Your task to perform on an android device: Show me the alarms in the clock app Image 0: 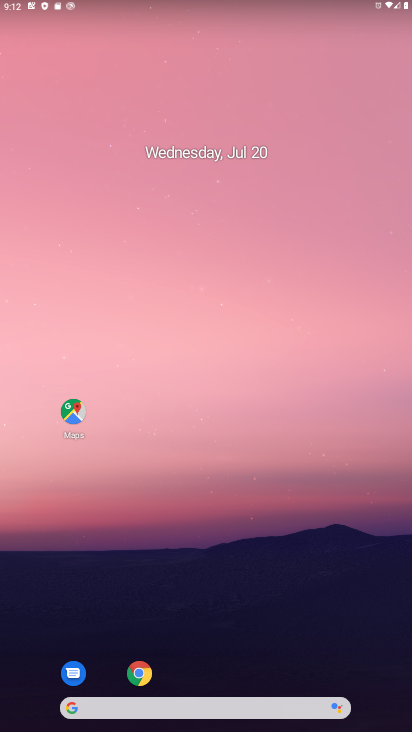
Step 0: drag from (209, 674) to (232, 275)
Your task to perform on an android device: Show me the alarms in the clock app Image 1: 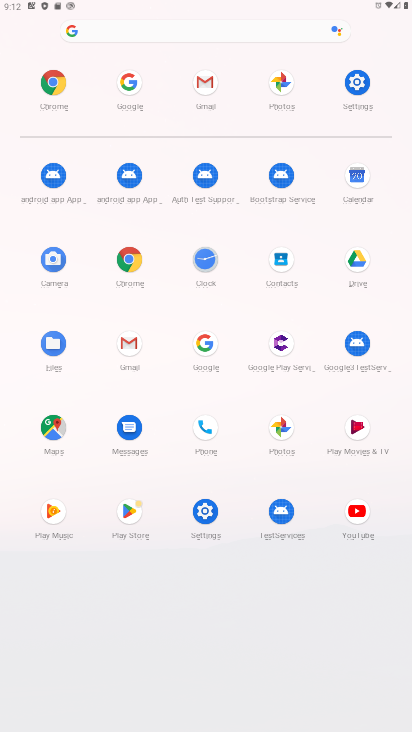
Step 1: click (207, 254)
Your task to perform on an android device: Show me the alarms in the clock app Image 2: 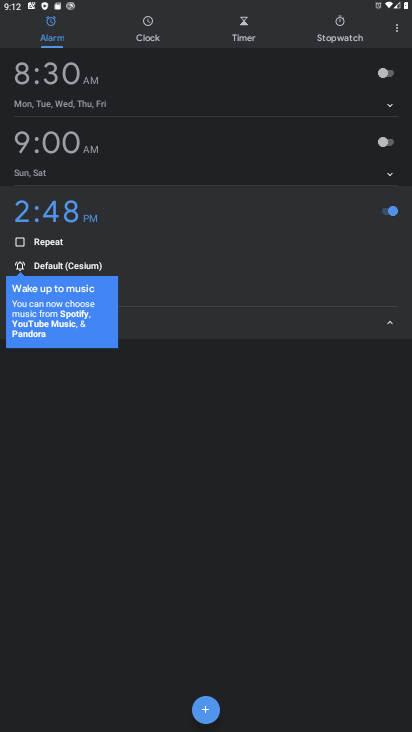
Step 2: task complete